Your task to perform on an android device: move an email to a new category in the gmail app Image 0: 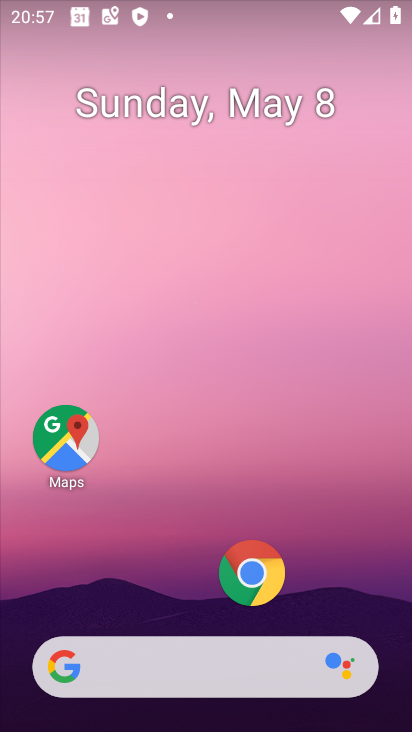
Step 0: click (171, 176)
Your task to perform on an android device: move an email to a new category in the gmail app Image 1: 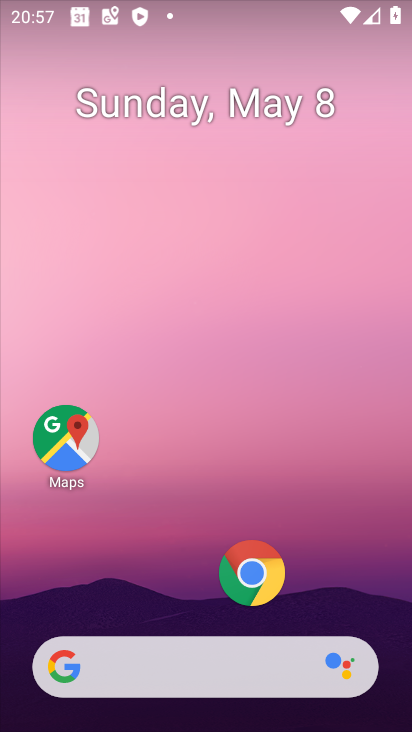
Step 1: drag from (115, 553) to (118, 103)
Your task to perform on an android device: move an email to a new category in the gmail app Image 2: 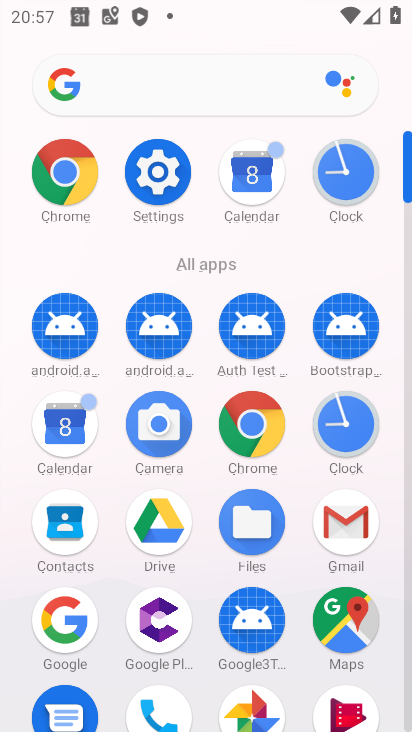
Step 2: click (334, 533)
Your task to perform on an android device: move an email to a new category in the gmail app Image 3: 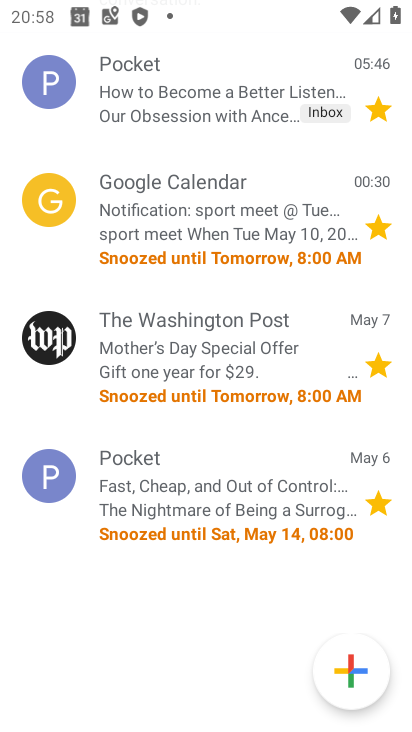
Step 3: click (202, 202)
Your task to perform on an android device: move an email to a new category in the gmail app Image 4: 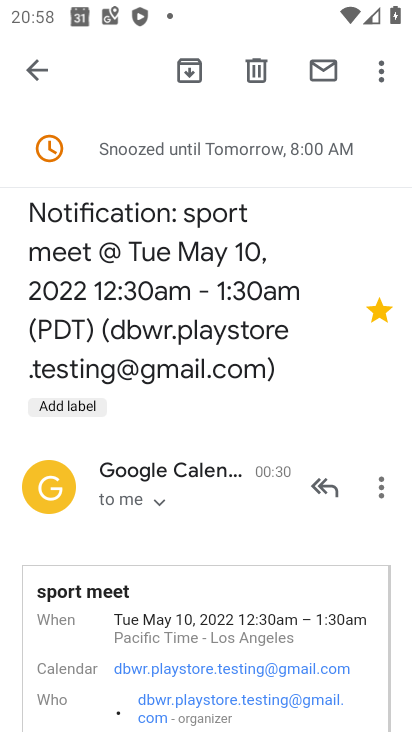
Step 4: click (375, 73)
Your task to perform on an android device: move an email to a new category in the gmail app Image 5: 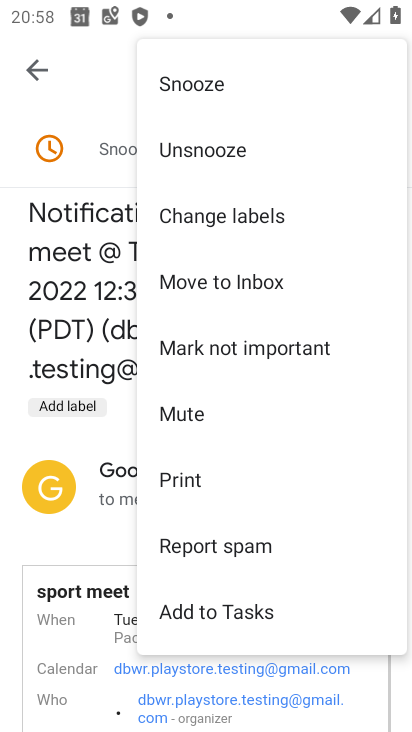
Step 5: click (231, 284)
Your task to perform on an android device: move an email to a new category in the gmail app Image 6: 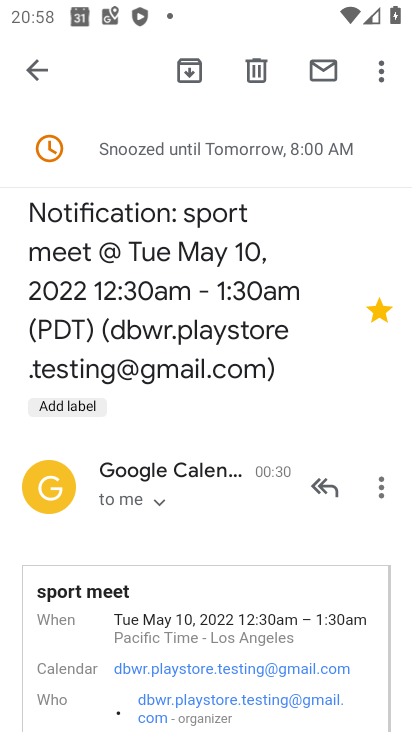
Step 6: task complete